Your task to perform on an android device: toggle translation in the chrome app Image 0: 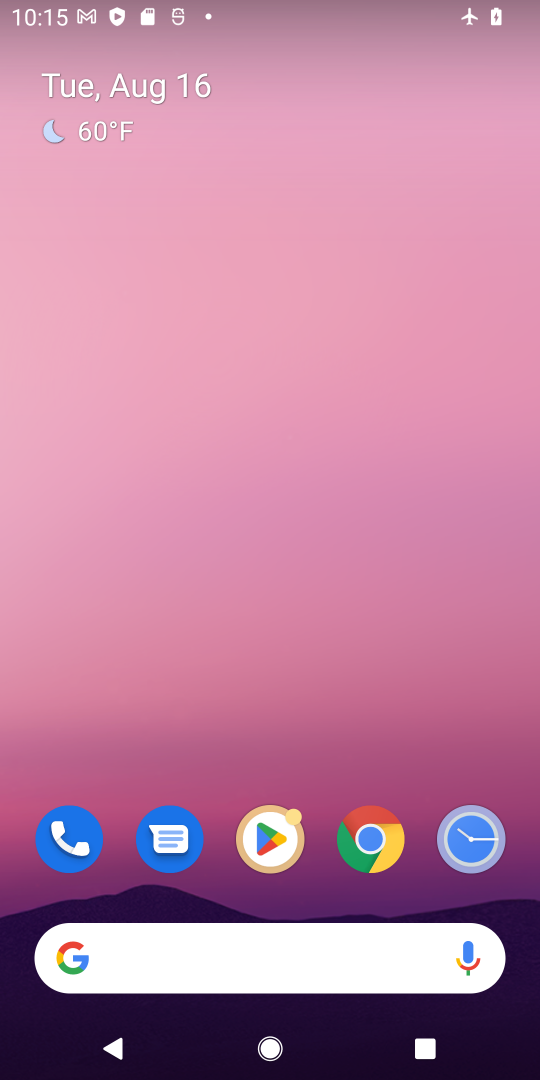
Step 0: click (350, 859)
Your task to perform on an android device: toggle translation in the chrome app Image 1: 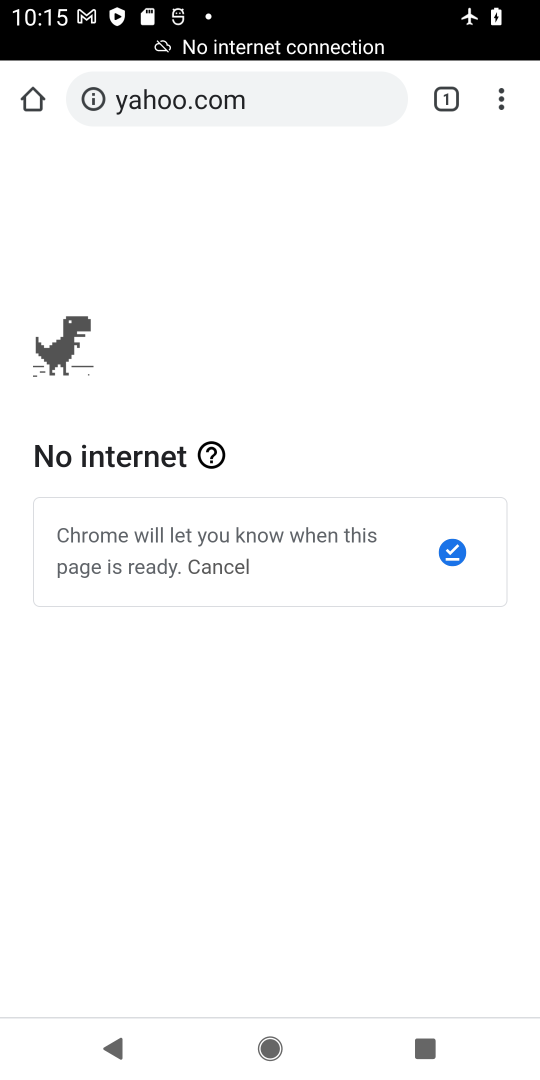
Step 1: click (492, 88)
Your task to perform on an android device: toggle translation in the chrome app Image 2: 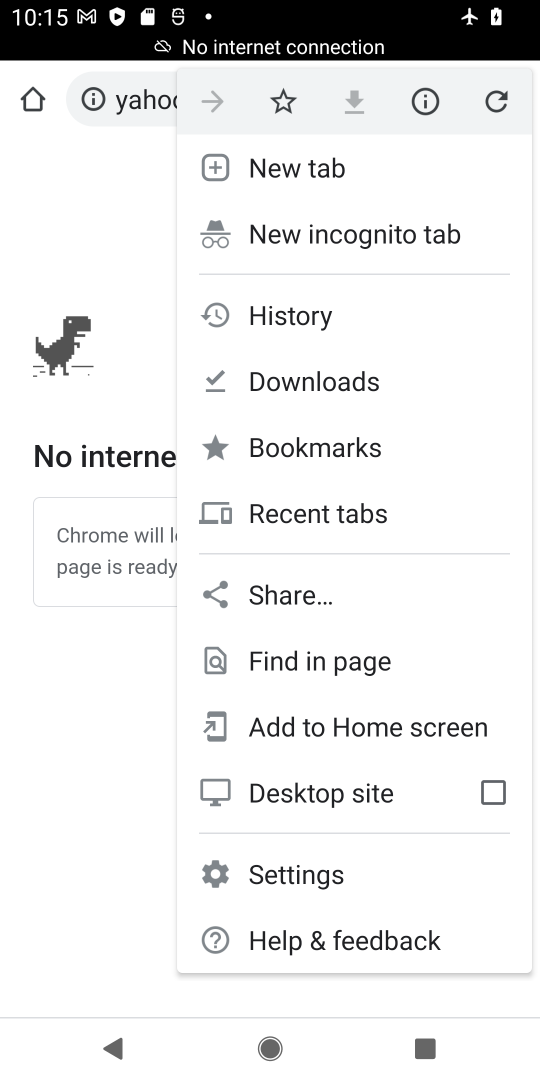
Step 2: click (317, 880)
Your task to perform on an android device: toggle translation in the chrome app Image 3: 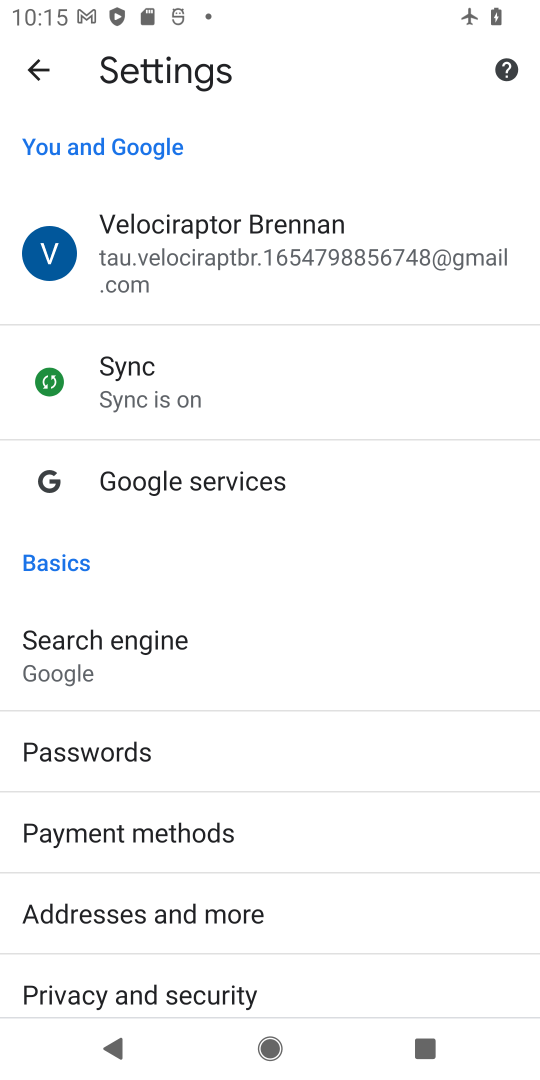
Step 3: drag from (213, 876) to (233, 302)
Your task to perform on an android device: toggle translation in the chrome app Image 4: 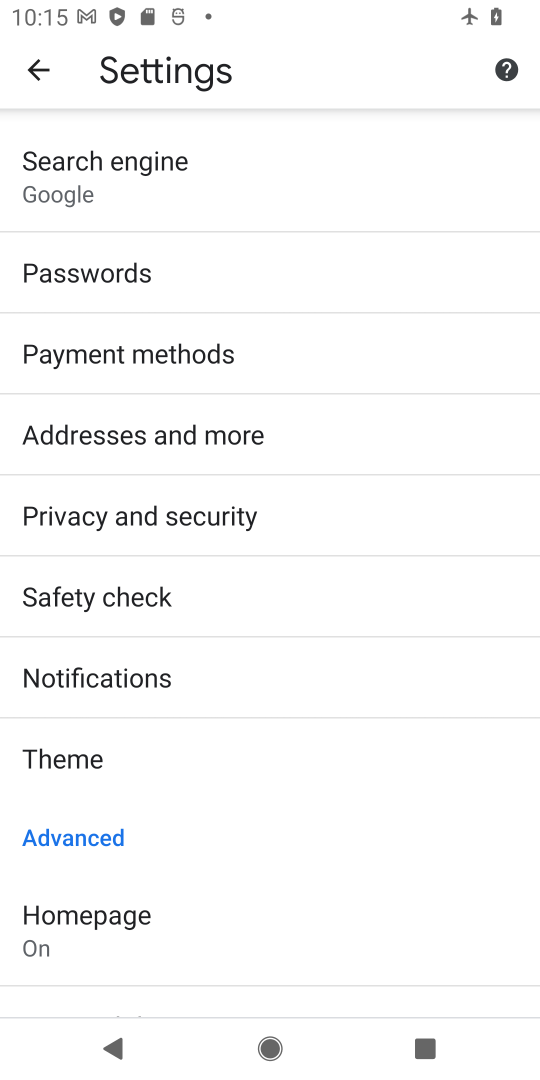
Step 4: drag from (191, 706) to (228, 467)
Your task to perform on an android device: toggle translation in the chrome app Image 5: 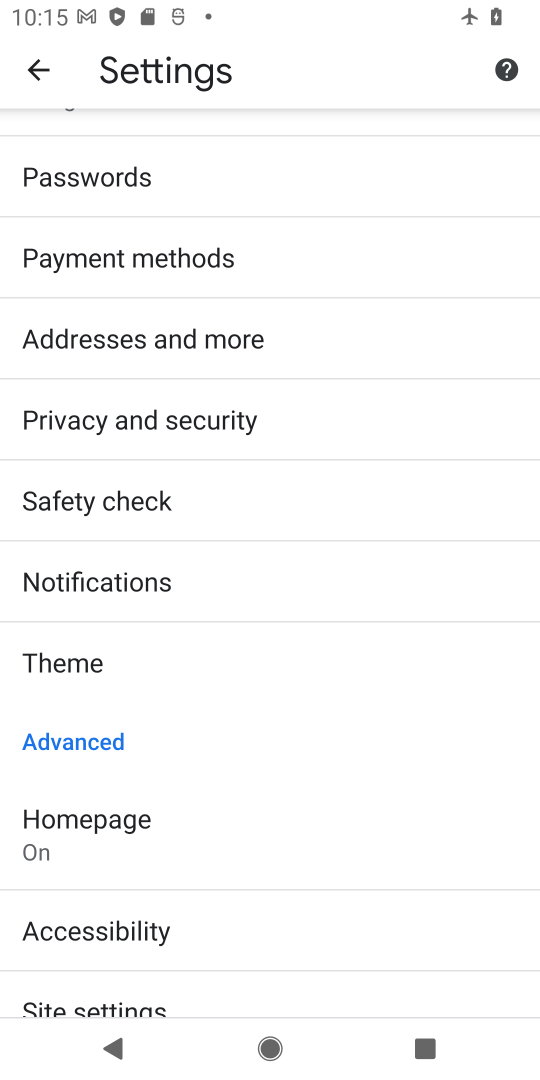
Step 5: drag from (192, 907) to (210, 477)
Your task to perform on an android device: toggle translation in the chrome app Image 6: 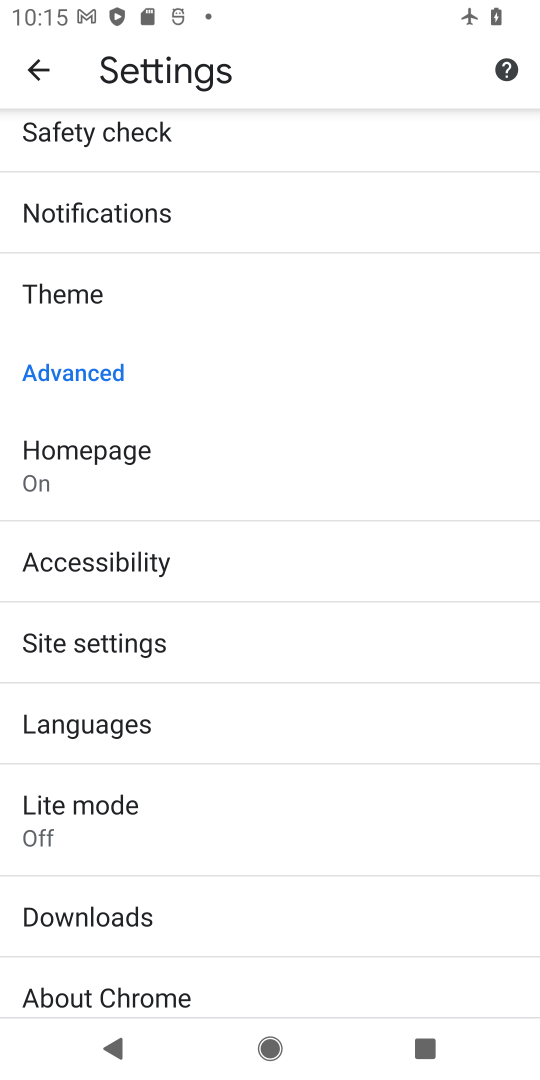
Step 6: click (121, 736)
Your task to perform on an android device: toggle translation in the chrome app Image 7: 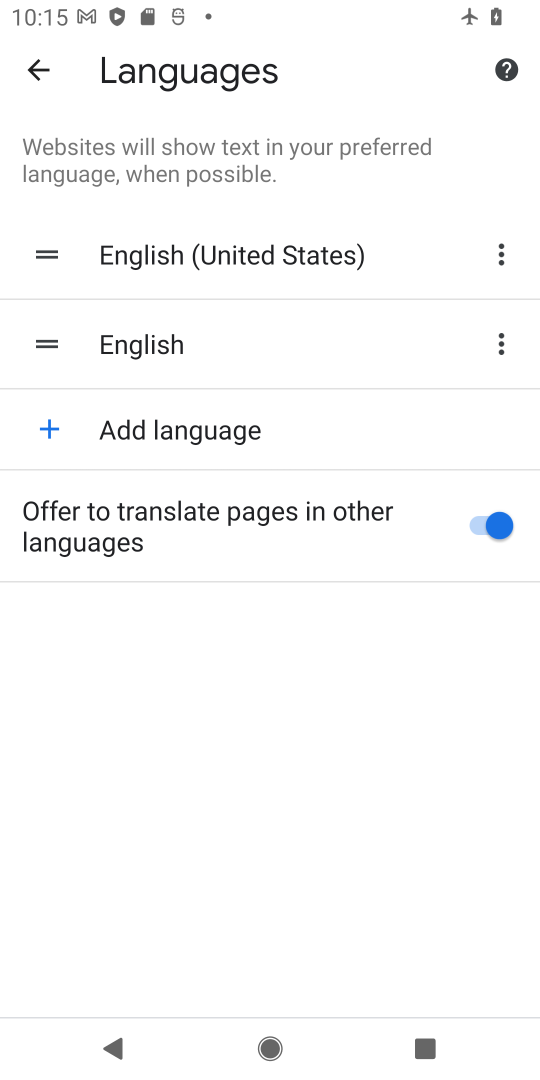
Step 7: click (450, 517)
Your task to perform on an android device: toggle translation in the chrome app Image 8: 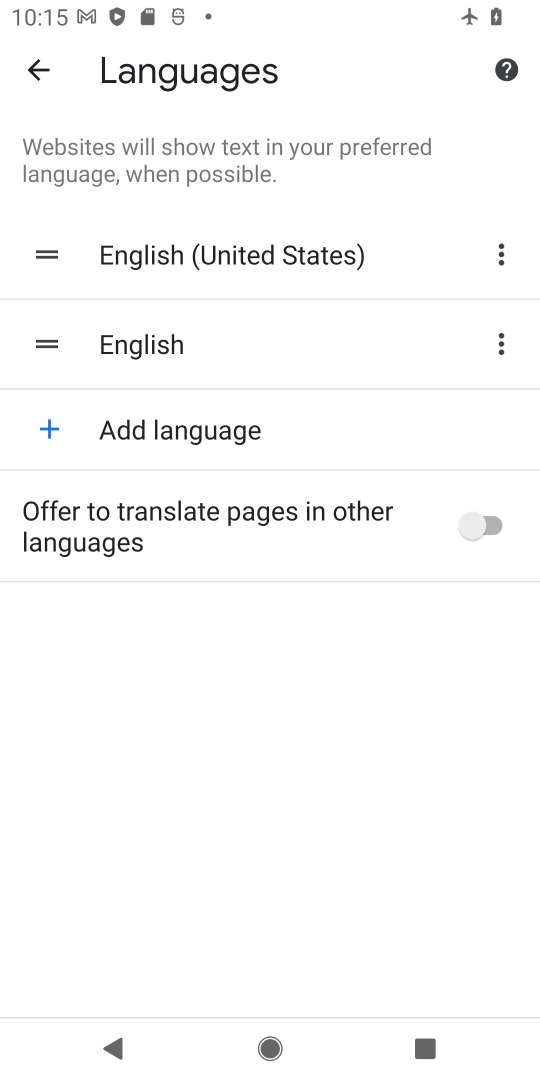
Step 8: task complete